Your task to perform on an android device: Open the Play Movies app and select the watchlist tab. Image 0: 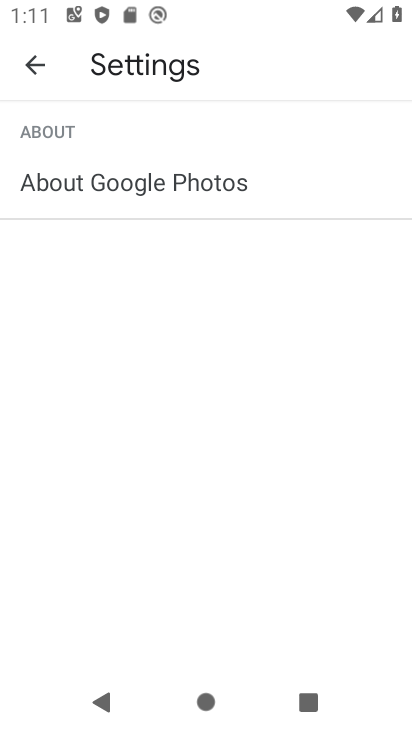
Step 0: press home button
Your task to perform on an android device: Open the Play Movies app and select the watchlist tab. Image 1: 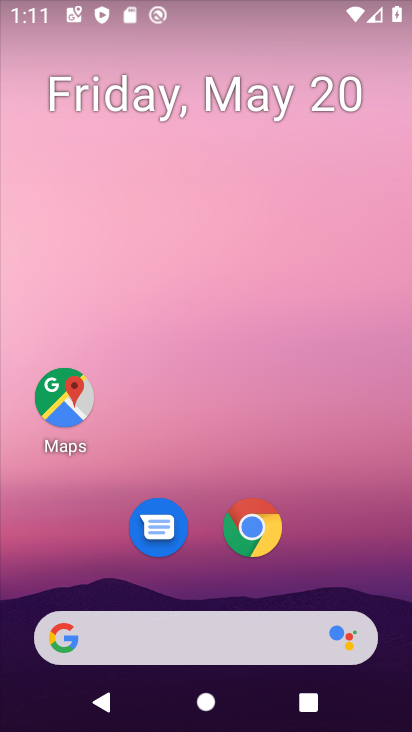
Step 1: drag from (180, 634) to (250, 229)
Your task to perform on an android device: Open the Play Movies app and select the watchlist tab. Image 2: 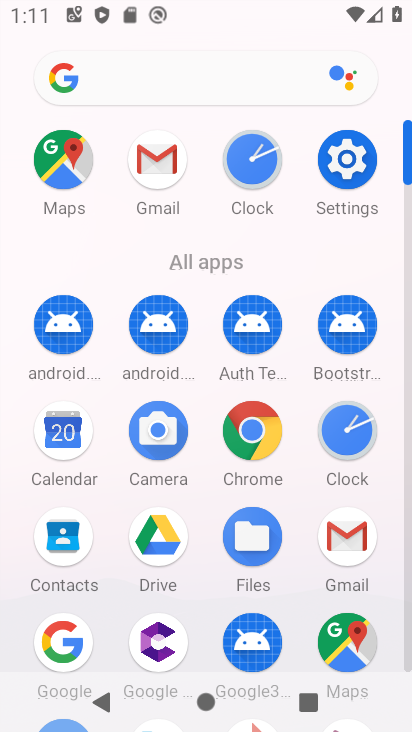
Step 2: drag from (213, 590) to (288, 232)
Your task to perform on an android device: Open the Play Movies app and select the watchlist tab. Image 3: 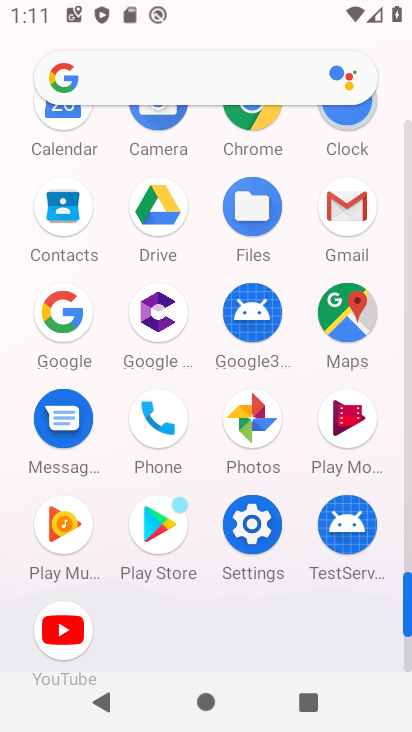
Step 3: click (348, 425)
Your task to perform on an android device: Open the Play Movies app and select the watchlist tab. Image 4: 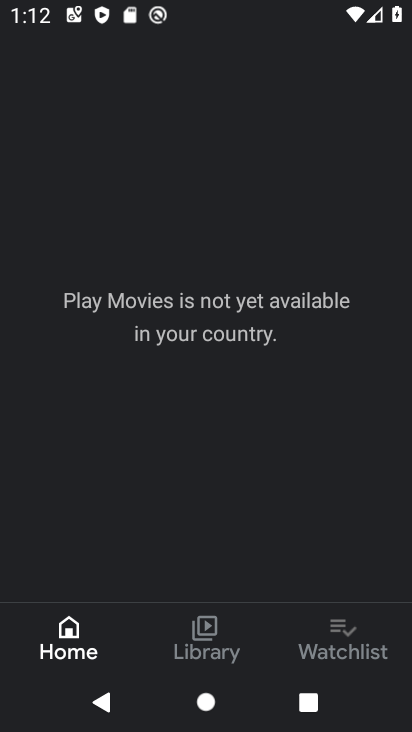
Step 4: click (359, 656)
Your task to perform on an android device: Open the Play Movies app and select the watchlist tab. Image 5: 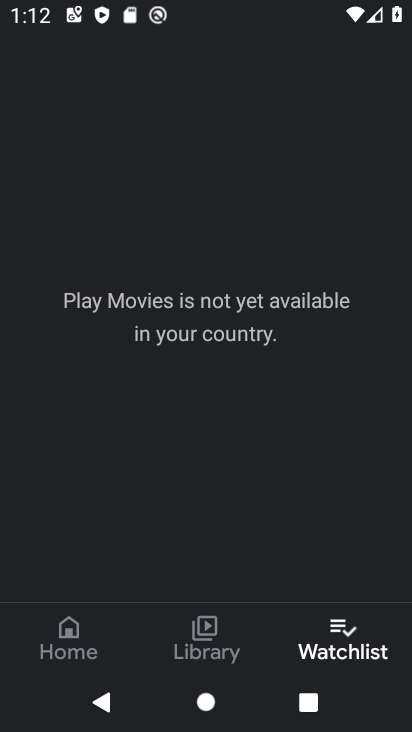
Step 5: task complete